Your task to perform on an android device: open app "Gmail" (install if not already installed) and go to login screen Image 0: 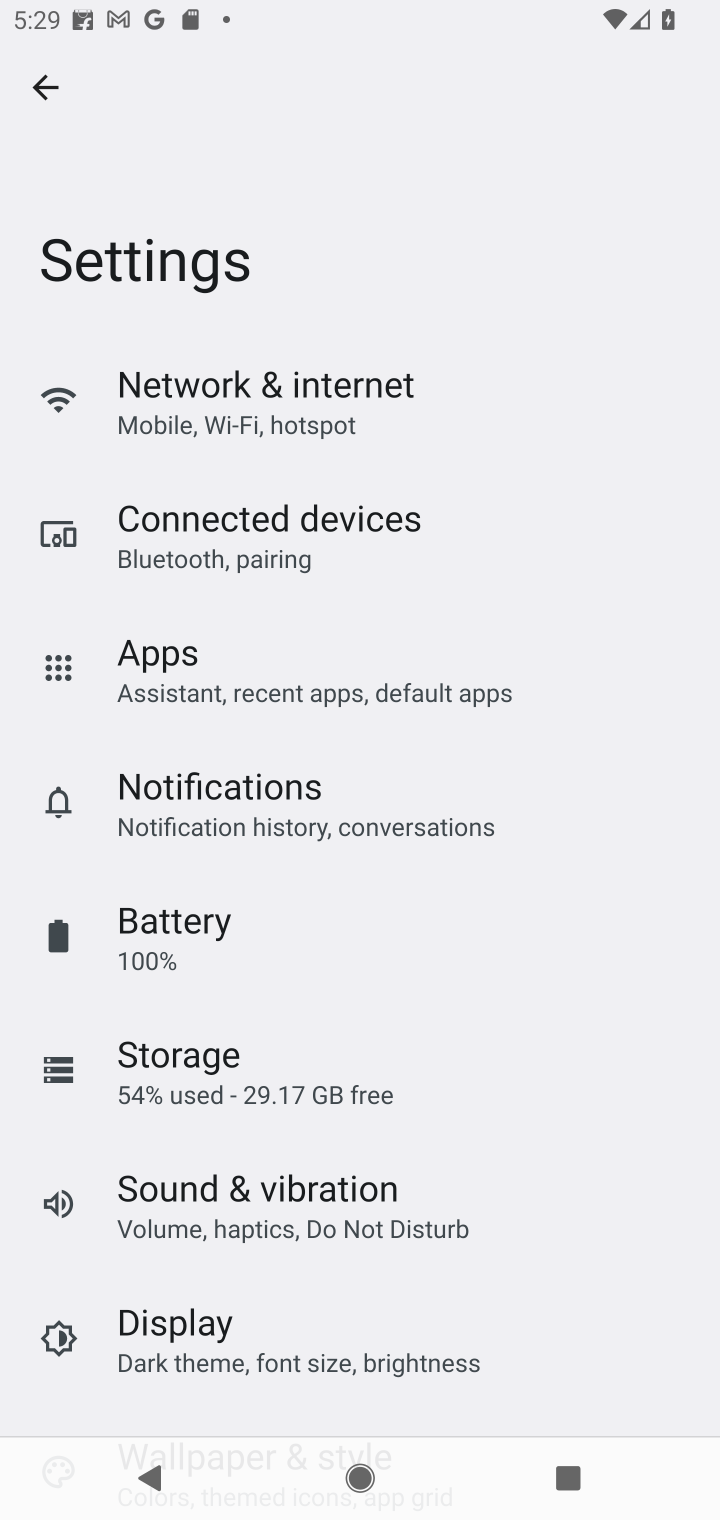
Step 0: press home button
Your task to perform on an android device: open app "Gmail" (install if not already installed) and go to login screen Image 1: 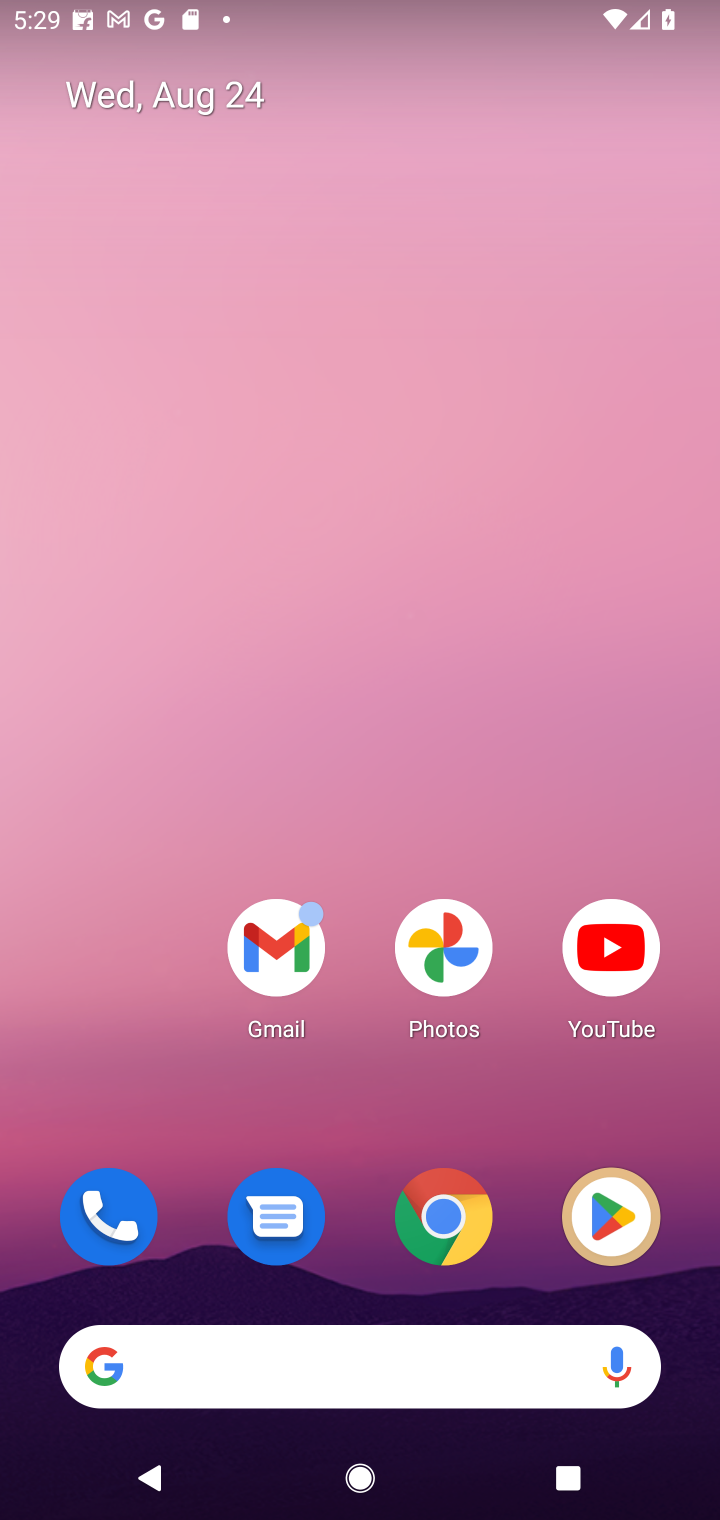
Step 1: click (591, 1226)
Your task to perform on an android device: open app "Gmail" (install if not already installed) and go to login screen Image 2: 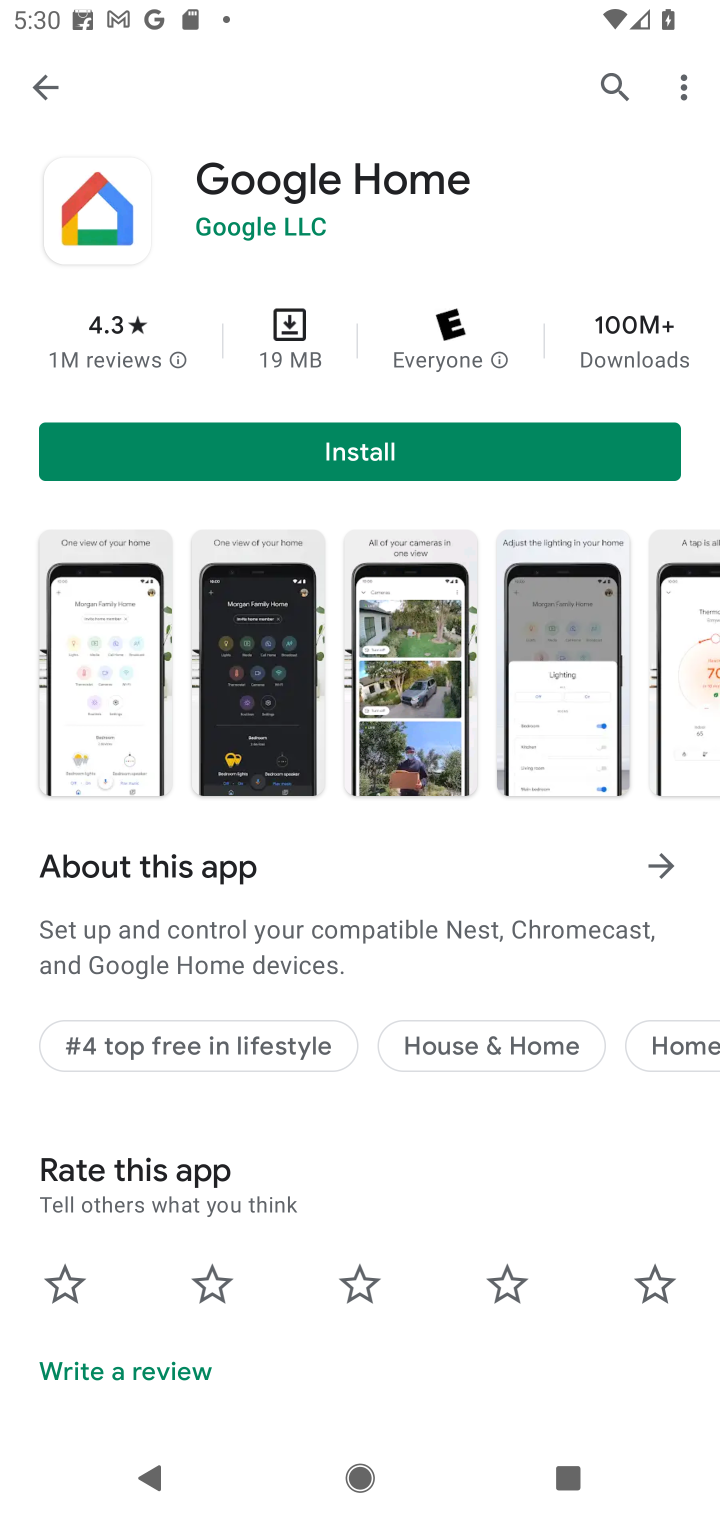
Step 2: click (599, 92)
Your task to perform on an android device: open app "Gmail" (install if not already installed) and go to login screen Image 3: 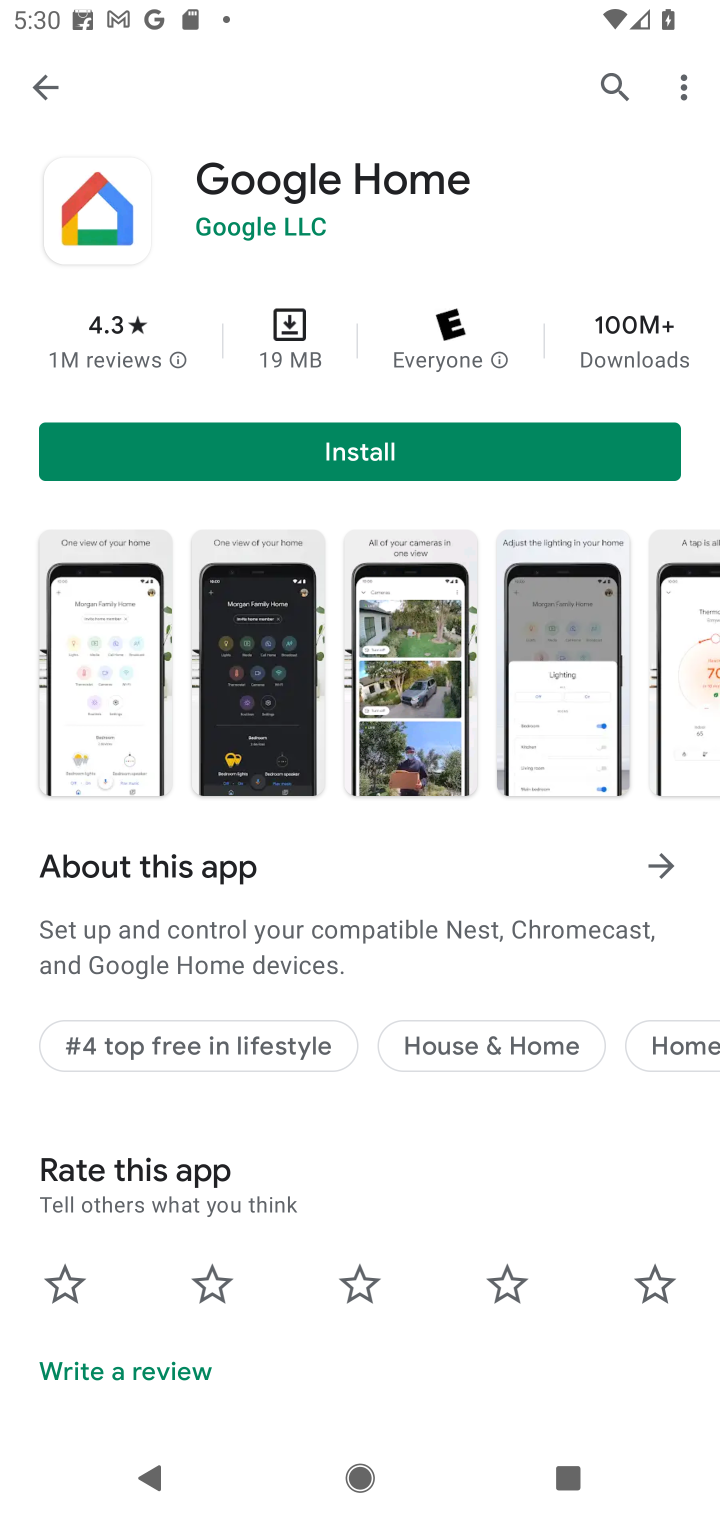
Step 3: click (599, 92)
Your task to perform on an android device: open app "Gmail" (install if not already installed) and go to login screen Image 4: 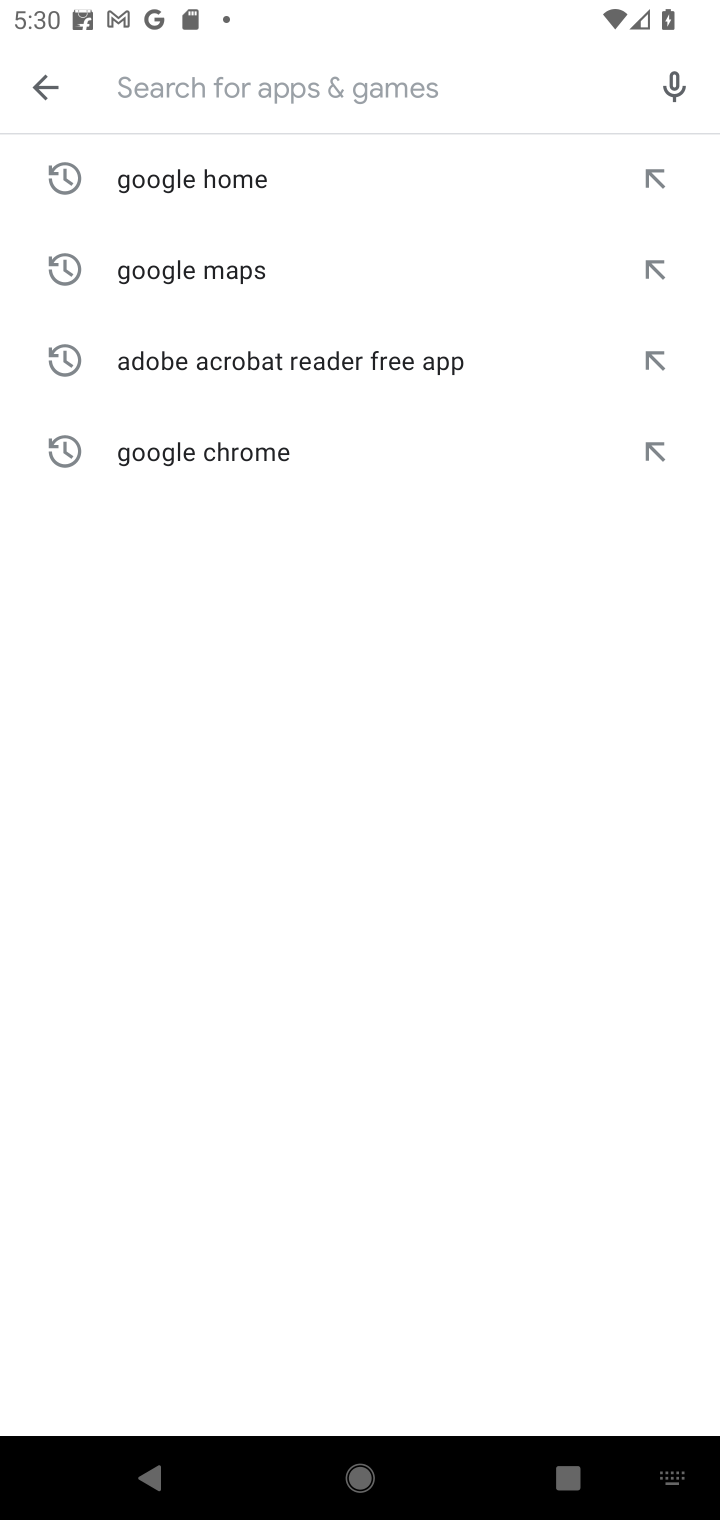
Step 4: type "Gmail"
Your task to perform on an android device: open app "Gmail" (install if not already installed) and go to login screen Image 5: 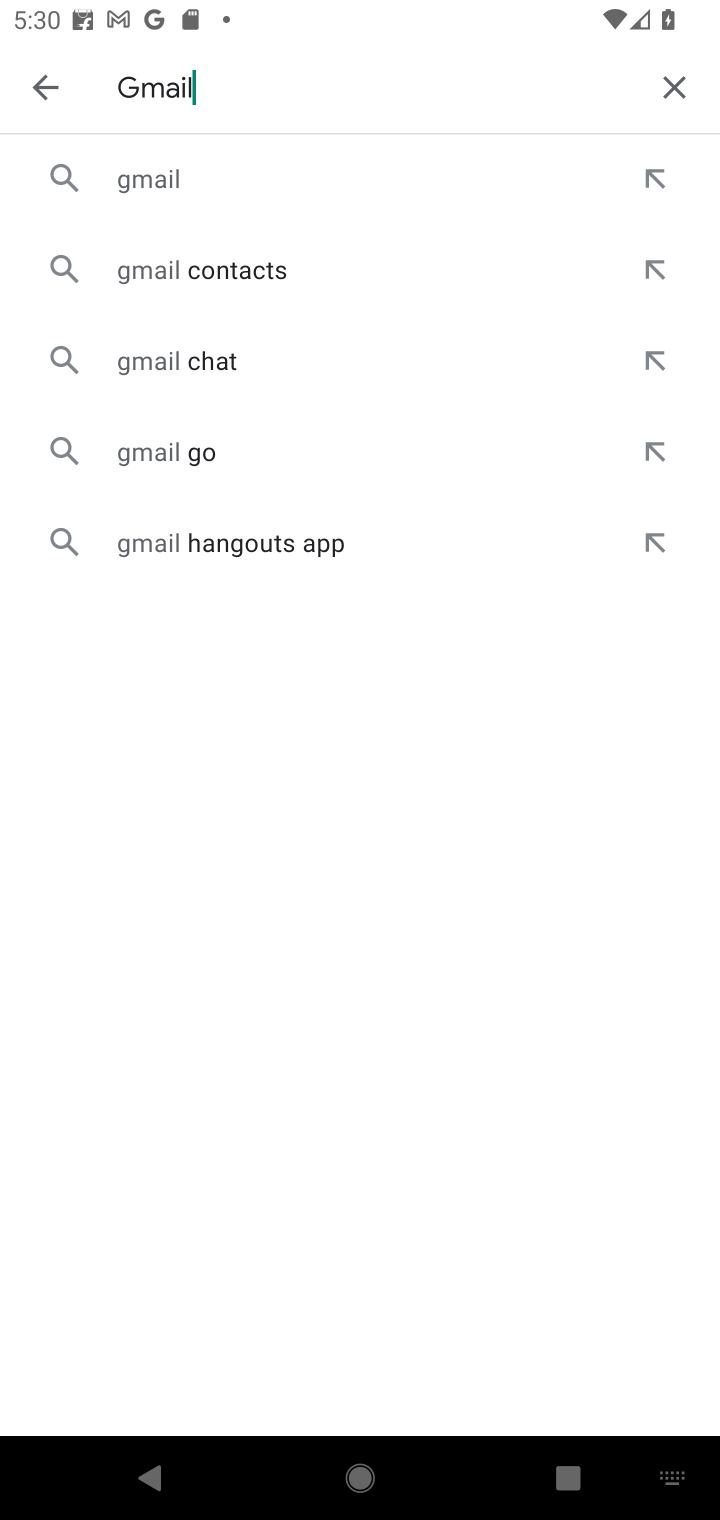
Step 5: click (203, 178)
Your task to perform on an android device: open app "Gmail" (install if not already installed) and go to login screen Image 6: 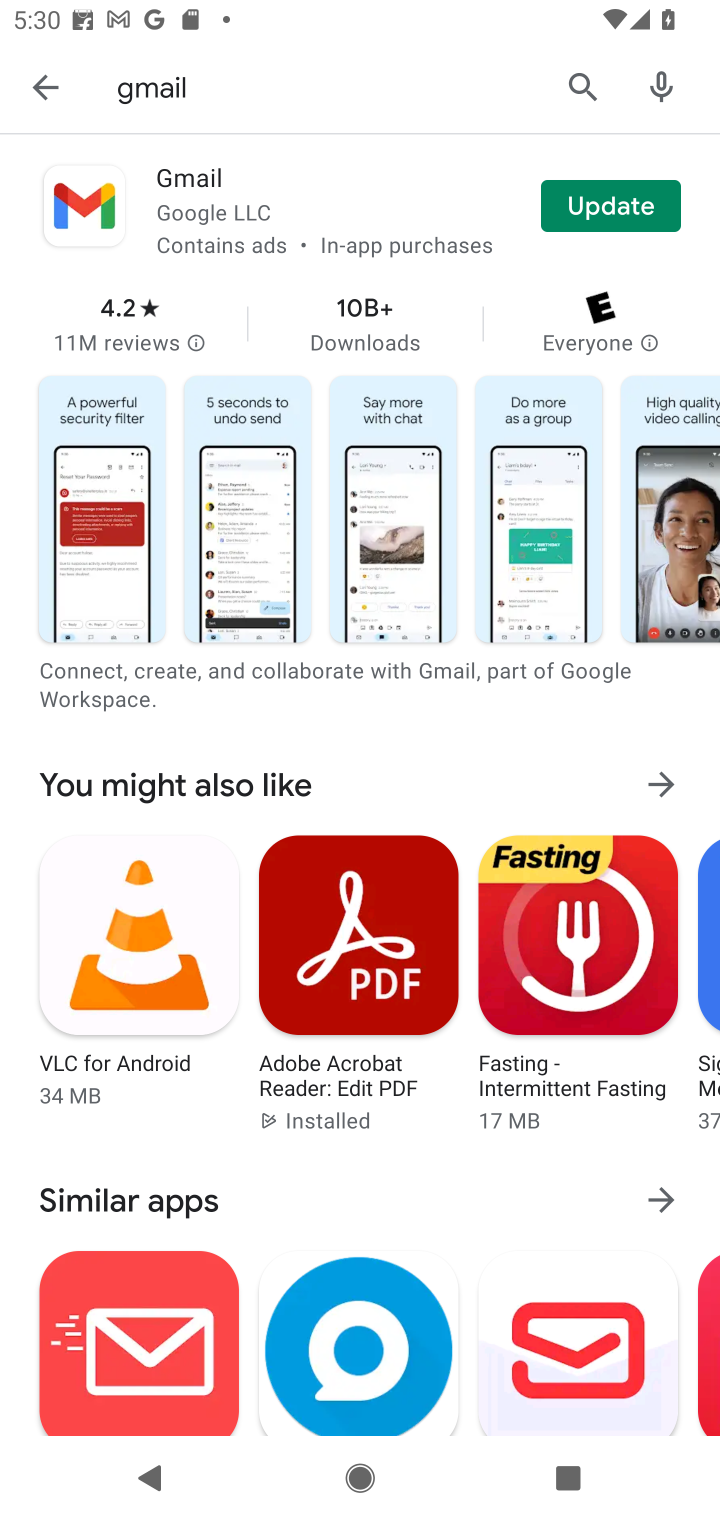
Step 6: click (368, 184)
Your task to perform on an android device: open app "Gmail" (install if not already installed) and go to login screen Image 7: 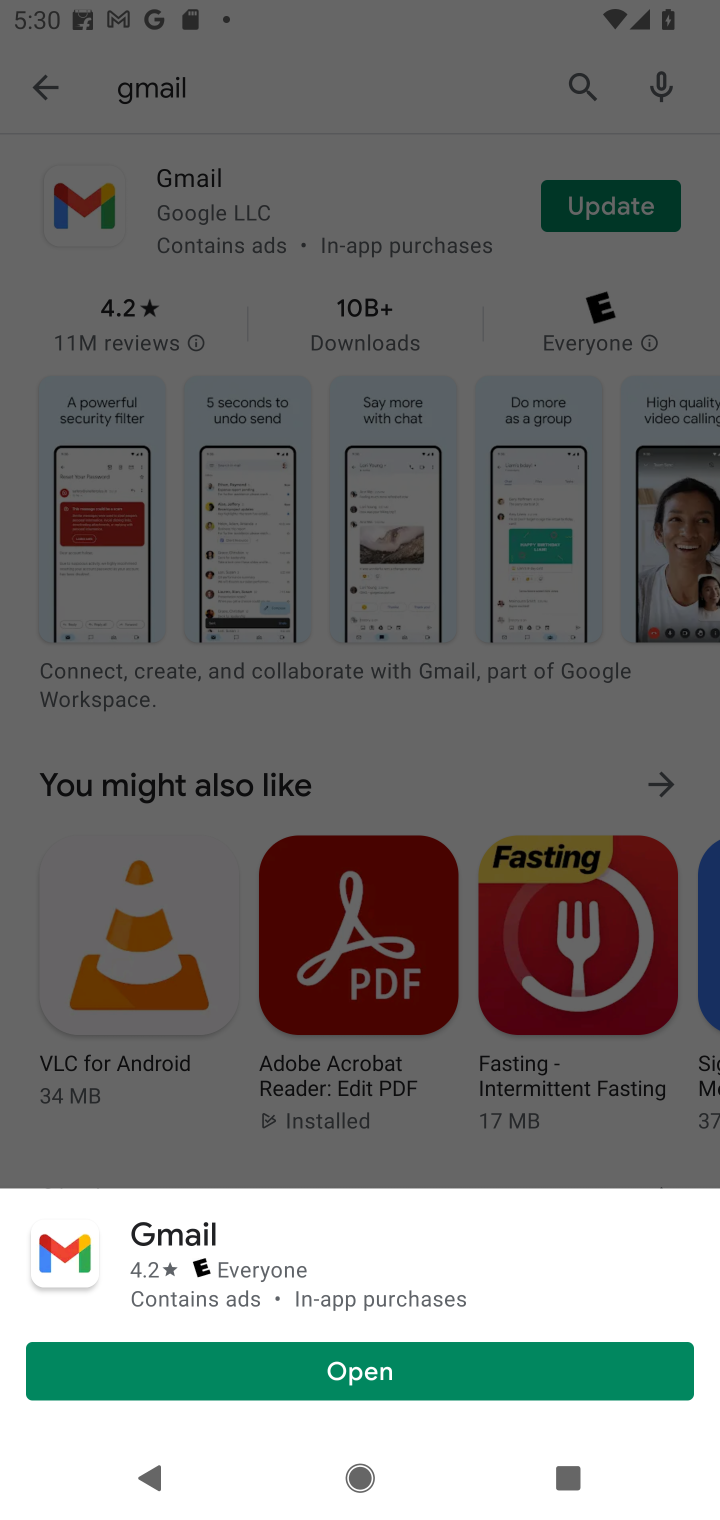
Step 7: click (399, 1354)
Your task to perform on an android device: open app "Gmail" (install if not already installed) and go to login screen Image 8: 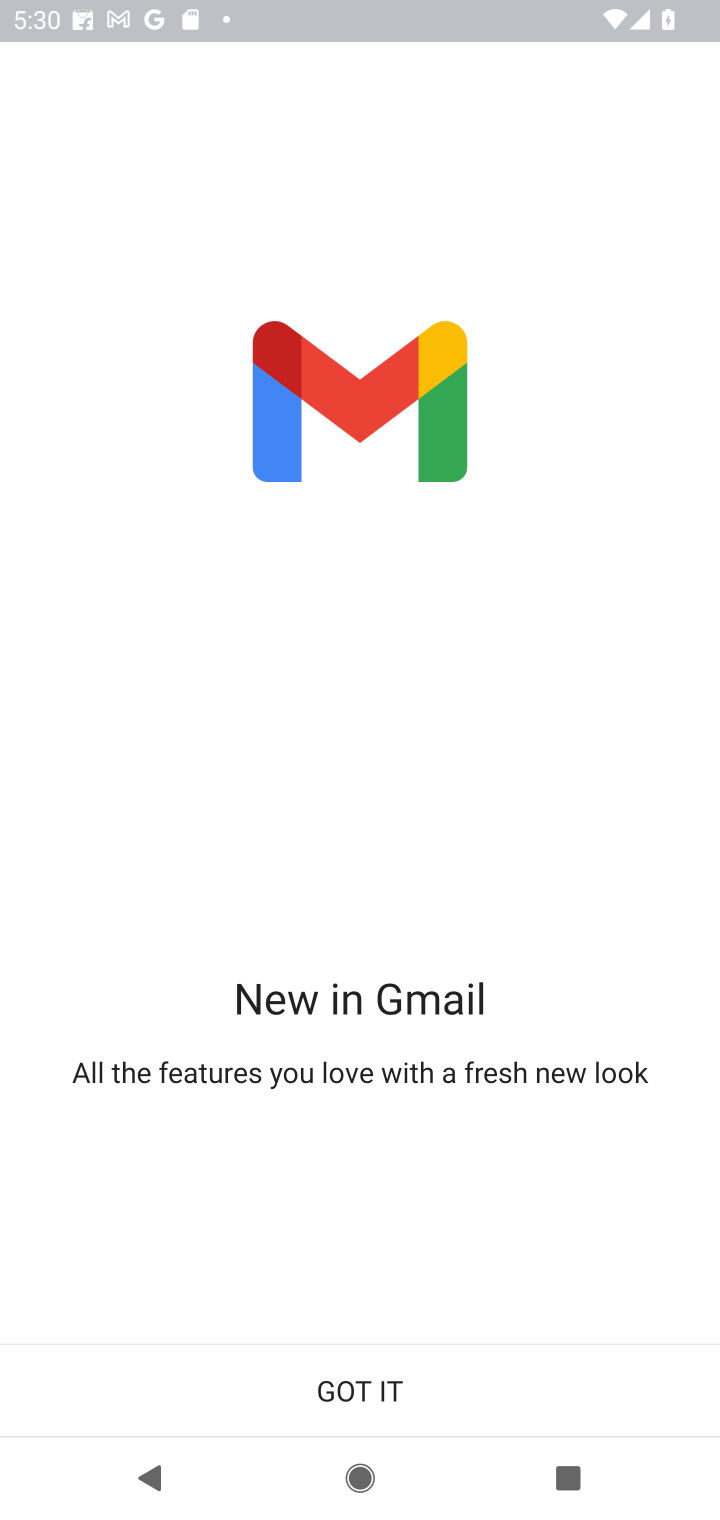
Step 8: task complete